Your task to perform on an android device: Go to CNN.com Image 0: 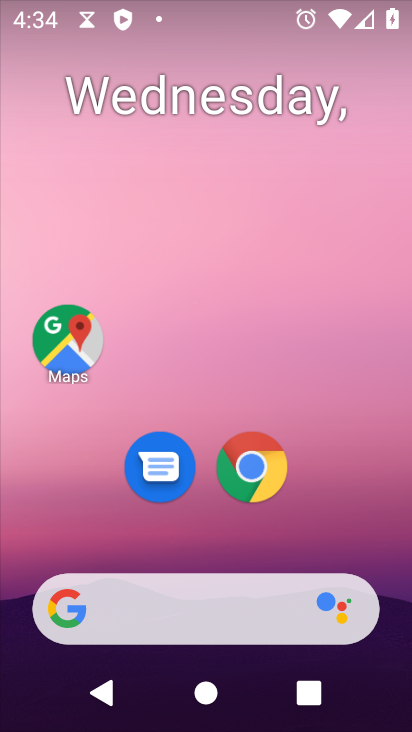
Step 0: drag from (359, 493) to (332, 18)
Your task to perform on an android device: Go to CNN.com Image 1: 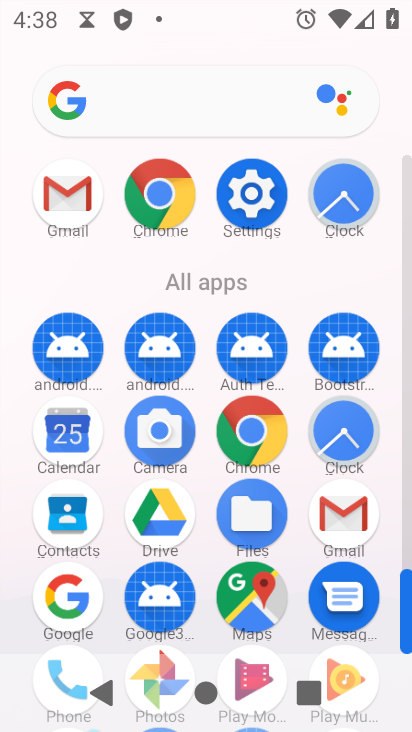
Step 1: click (163, 223)
Your task to perform on an android device: Go to CNN.com Image 2: 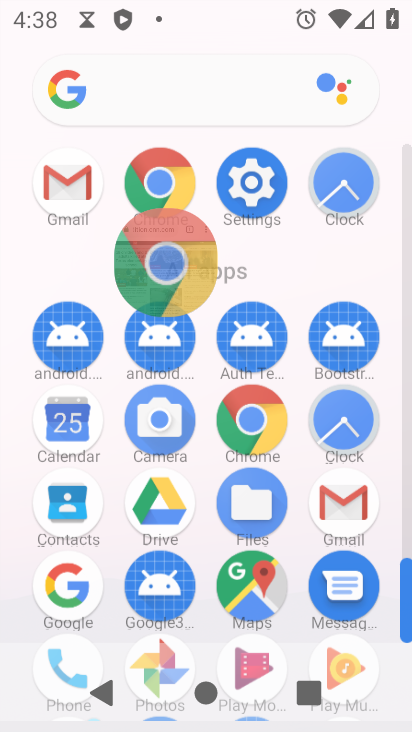
Step 2: click (174, 217)
Your task to perform on an android device: Go to CNN.com Image 3: 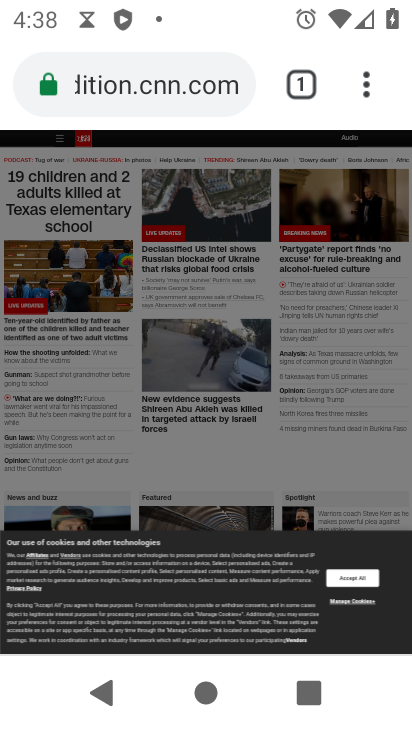
Step 3: click (143, 96)
Your task to perform on an android device: Go to CNN.com Image 4: 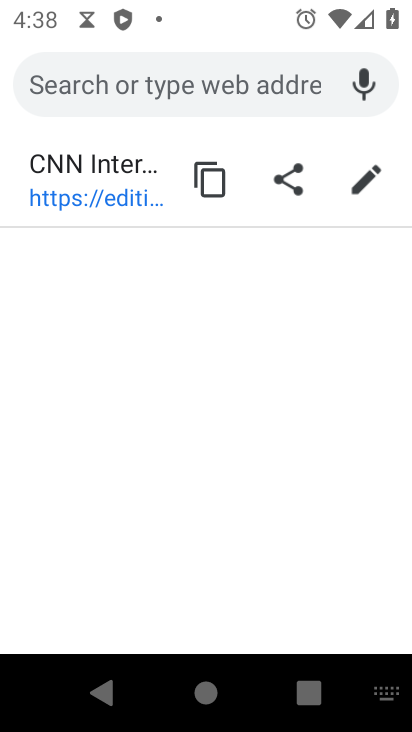
Step 4: click (91, 199)
Your task to perform on an android device: Go to CNN.com Image 5: 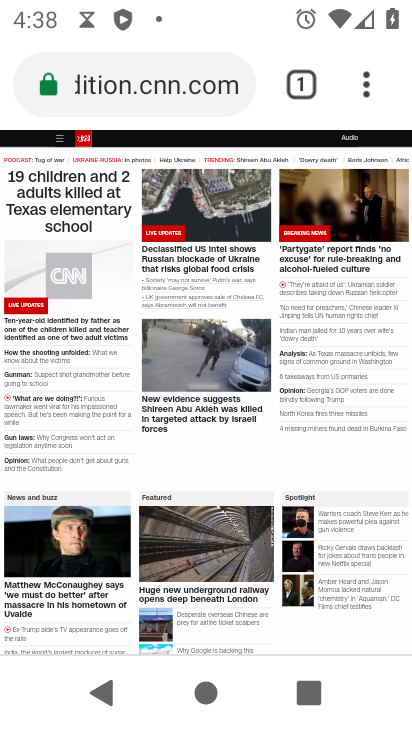
Step 5: task complete